Your task to perform on an android device: Open Yahoo.com Image 0: 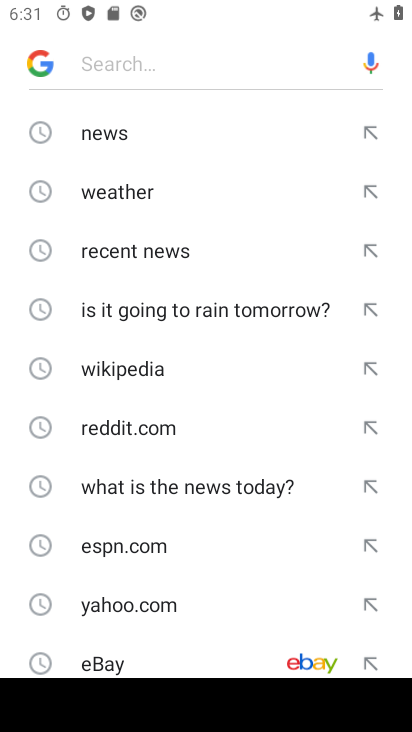
Step 0: press back button
Your task to perform on an android device: Open Yahoo.com Image 1: 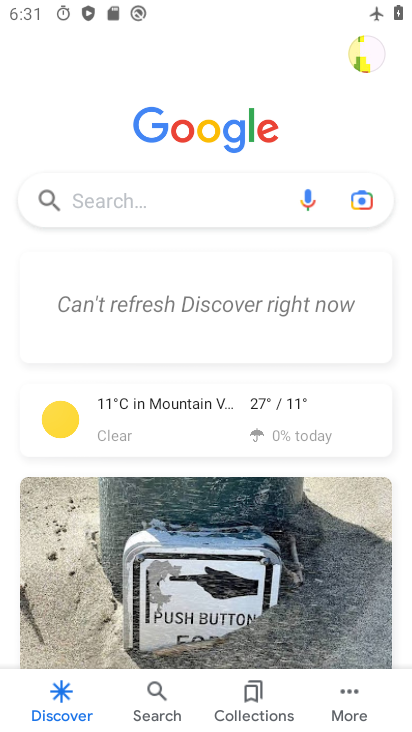
Step 1: task complete